Your task to perform on an android device: Go to eBay Image 0: 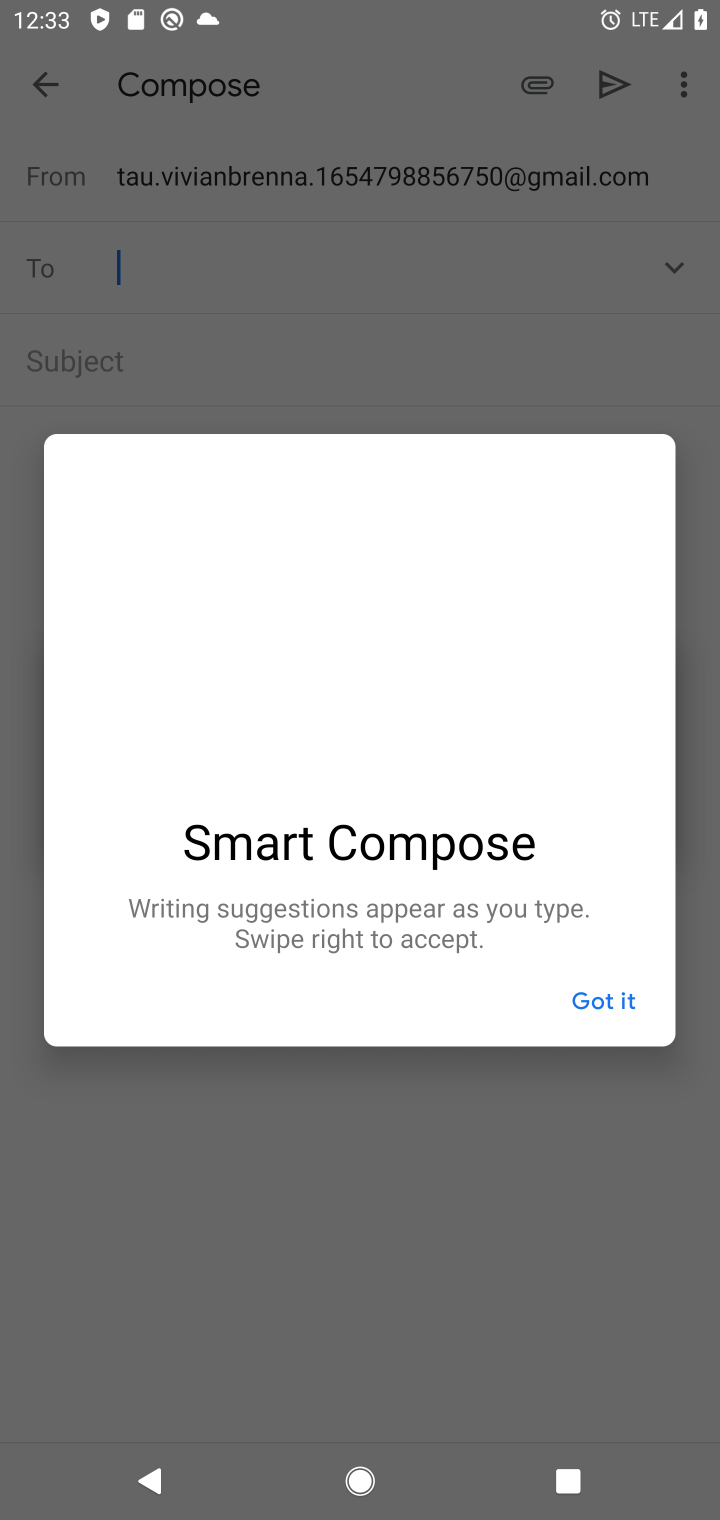
Step 0: press home button
Your task to perform on an android device: Go to eBay Image 1: 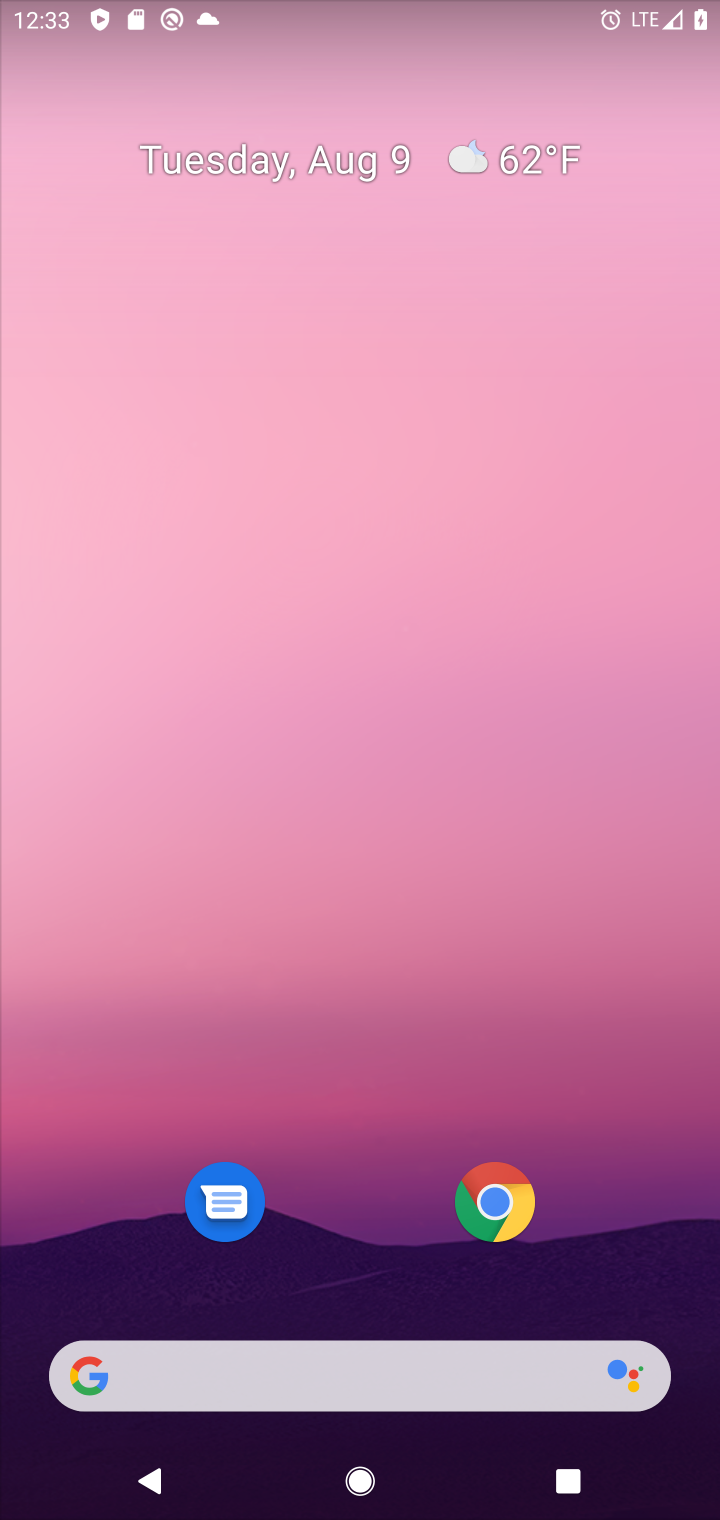
Step 1: click (497, 1210)
Your task to perform on an android device: Go to eBay Image 2: 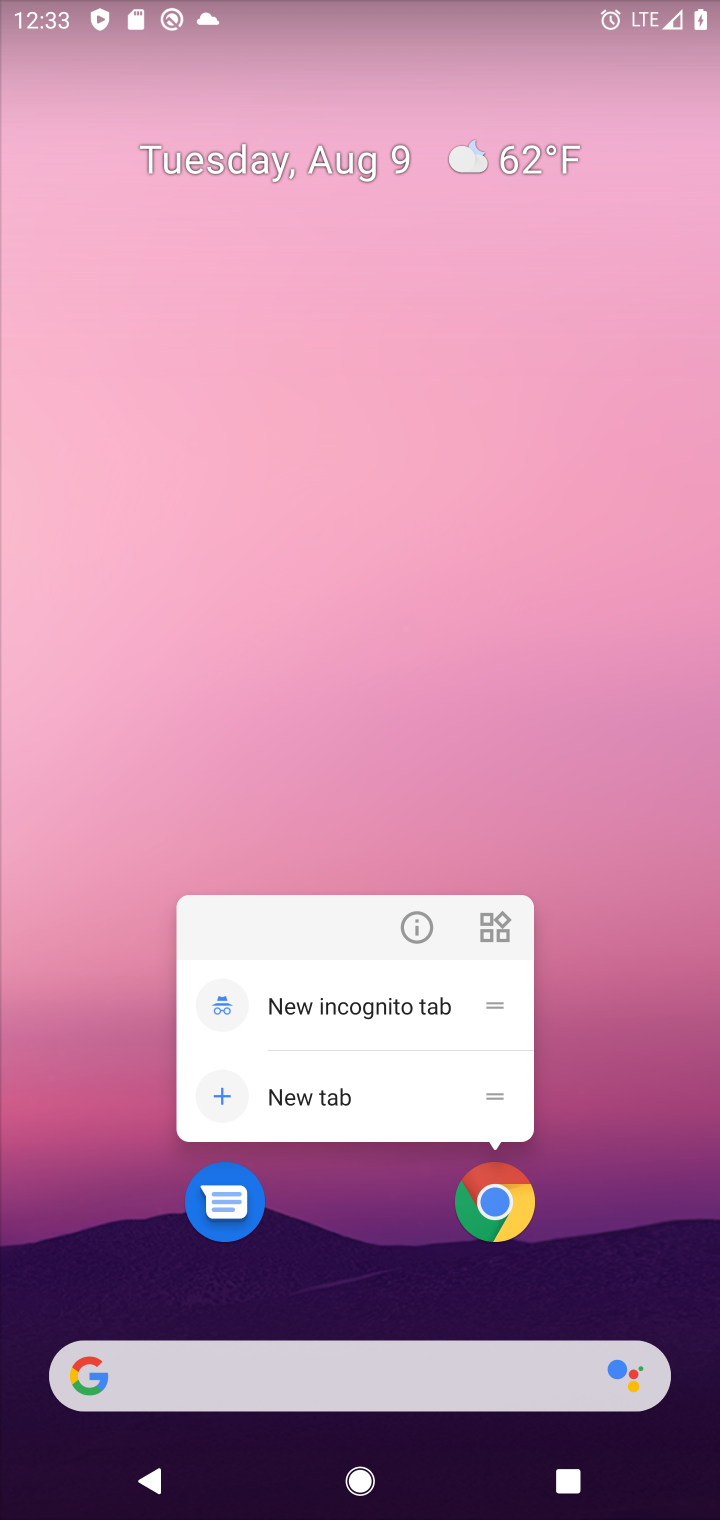
Step 2: click (497, 1210)
Your task to perform on an android device: Go to eBay Image 3: 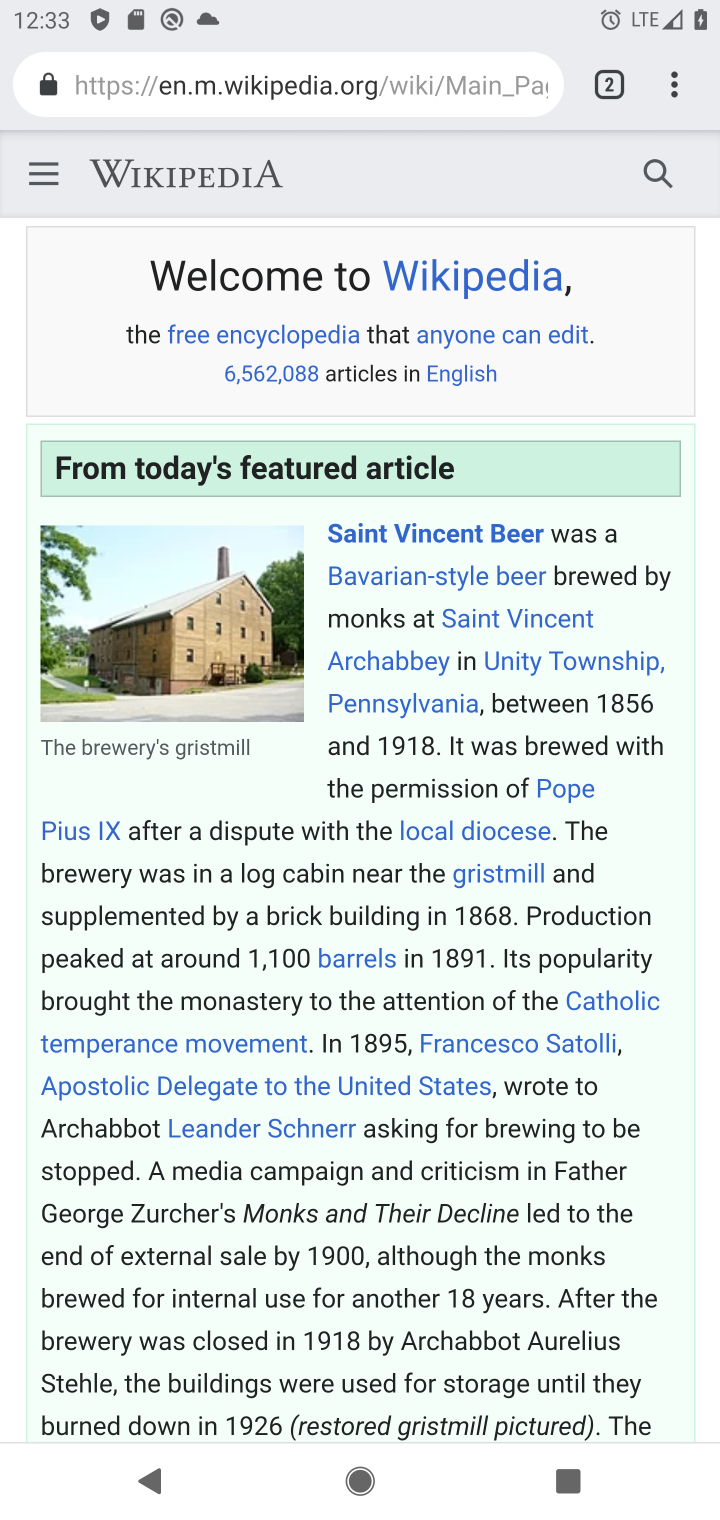
Step 3: press back button
Your task to perform on an android device: Go to eBay Image 4: 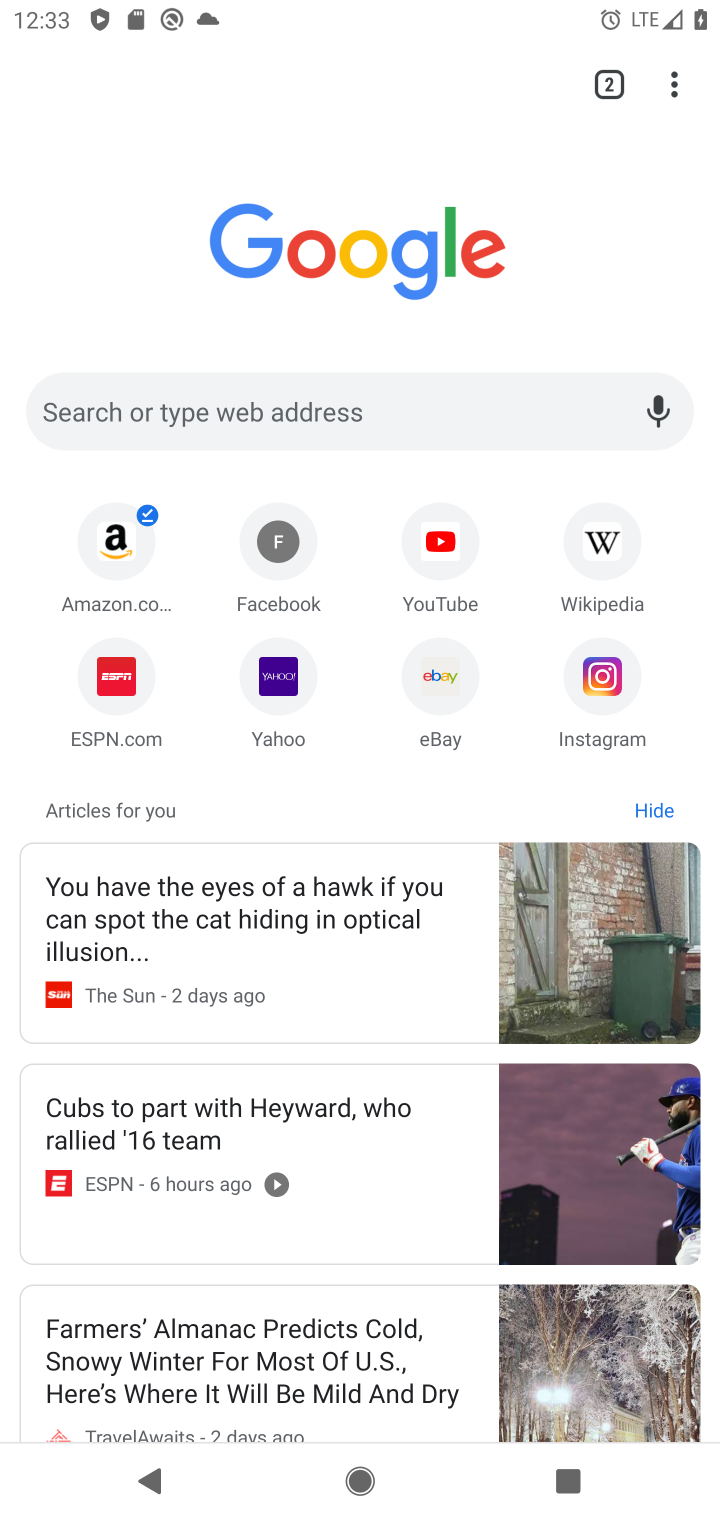
Step 4: click (429, 669)
Your task to perform on an android device: Go to eBay Image 5: 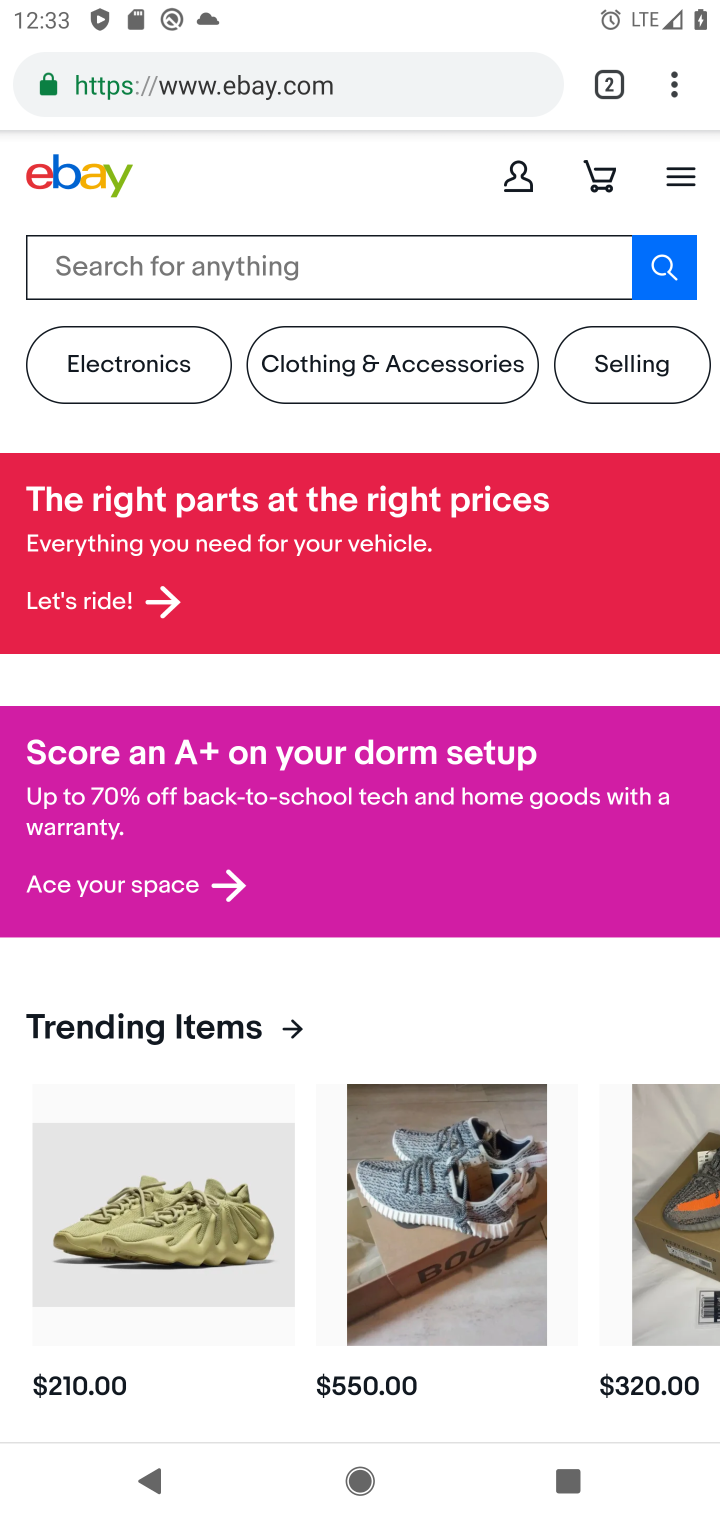
Step 5: task complete